Your task to perform on an android device: turn on data saver in the chrome app Image 0: 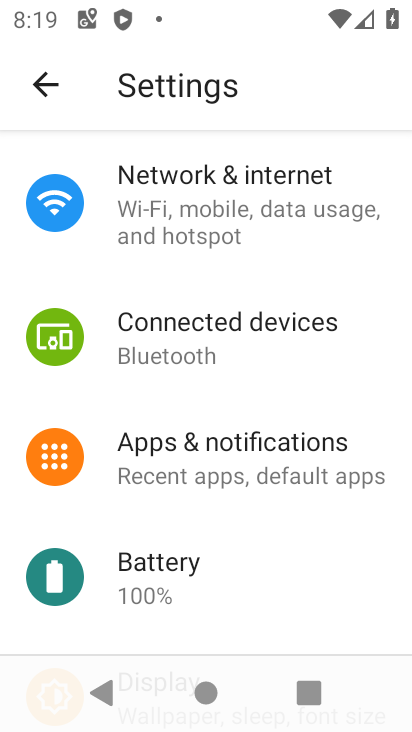
Step 0: press home button
Your task to perform on an android device: turn on data saver in the chrome app Image 1: 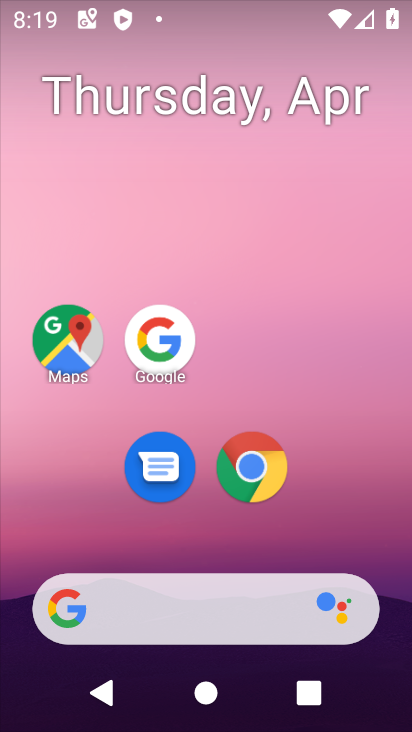
Step 1: drag from (228, 600) to (198, 6)
Your task to perform on an android device: turn on data saver in the chrome app Image 2: 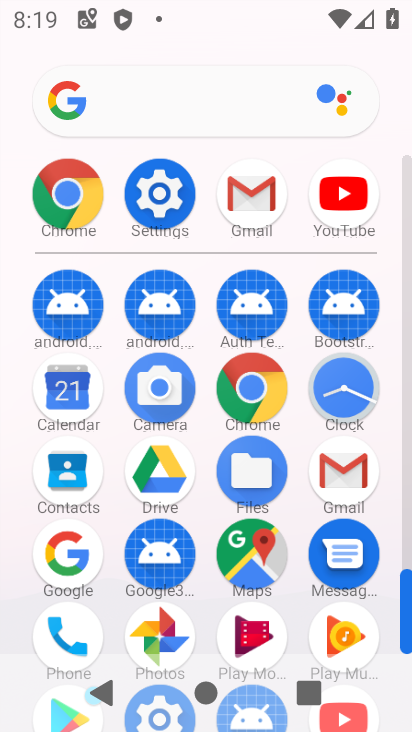
Step 2: click (83, 208)
Your task to perform on an android device: turn on data saver in the chrome app Image 3: 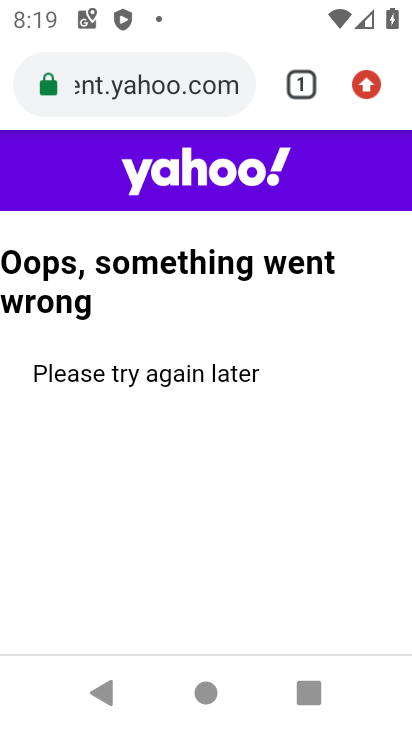
Step 3: click (366, 73)
Your task to perform on an android device: turn on data saver in the chrome app Image 4: 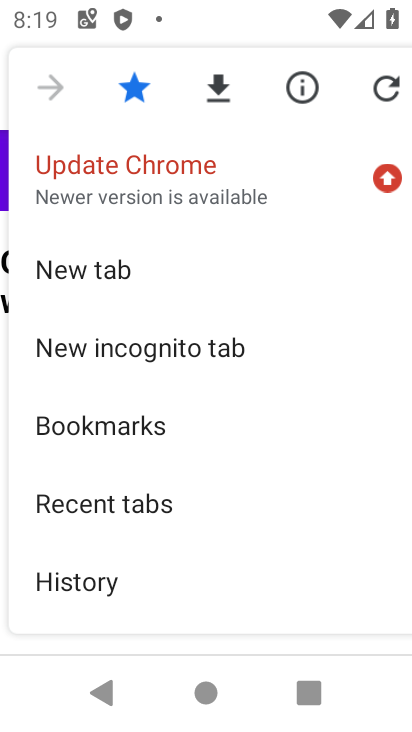
Step 4: drag from (166, 536) to (49, 22)
Your task to perform on an android device: turn on data saver in the chrome app Image 5: 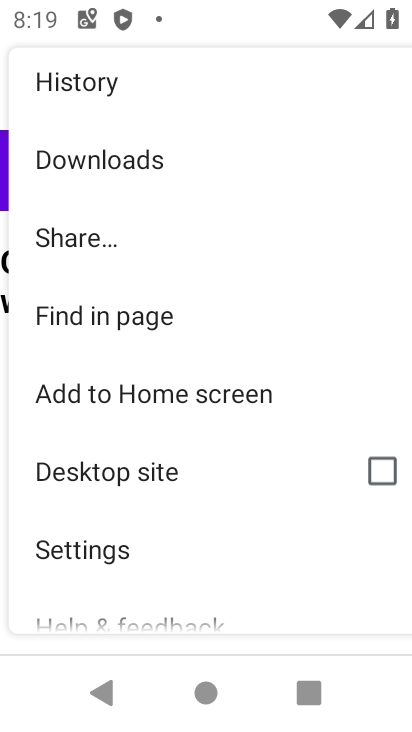
Step 5: drag from (127, 597) to (128, 136)
Your task to perform on an android device: turn on data saver in the chrome app Image 6: 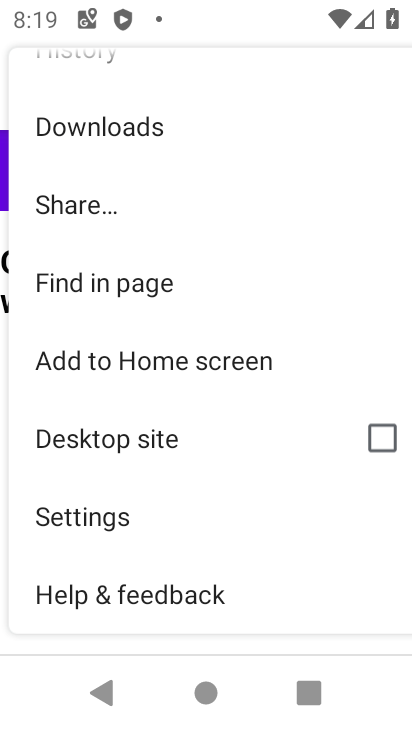
Step 6: click (108, 518)
Your task to perform on an android device: turn on data saver in the chrome app Image 7: 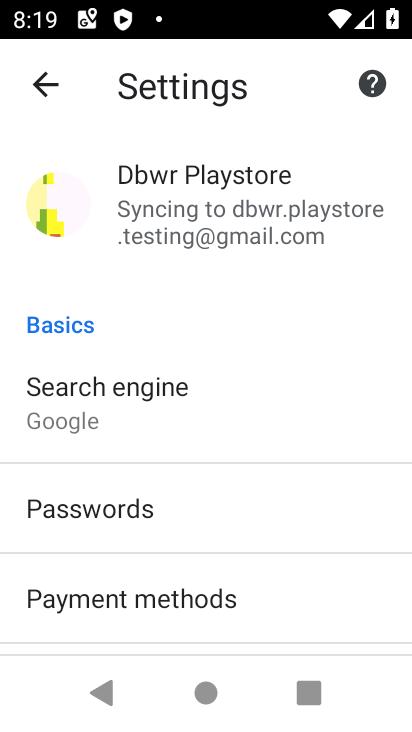
Step 7: drag from (185, 551) to (101, 35)
Your task to perform on an android device: turn on data saver in the chrome app Image 8: 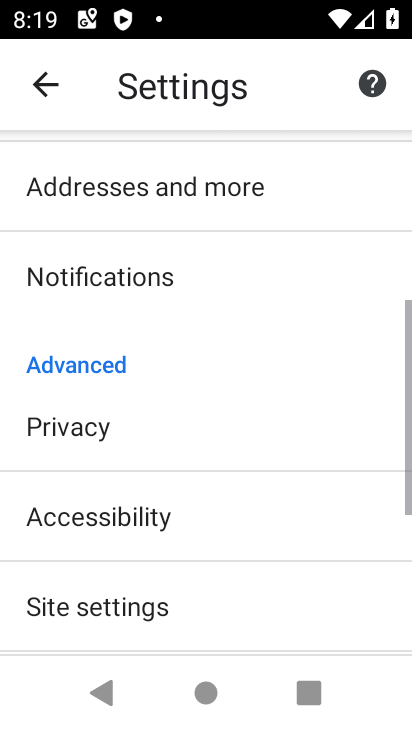
Step 8: drag from (169, 593) to (139, 27)
Your task to perform on an android device: turn on data saver in the chrome app Image 9: 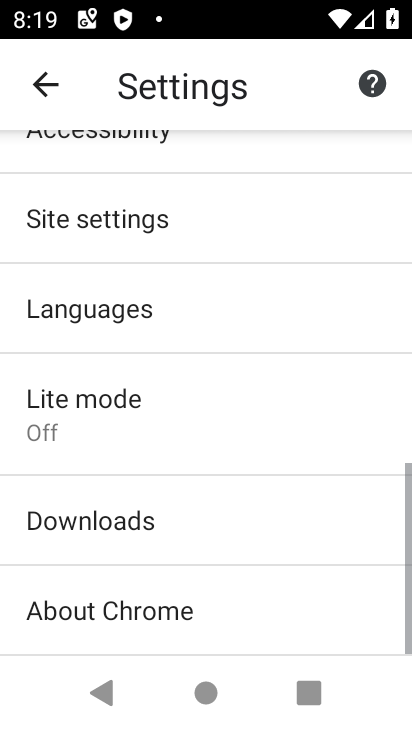
Step 9: click (153, 446)
Your task to perform on an android device: turn on data saver in the chrome app Image 10: 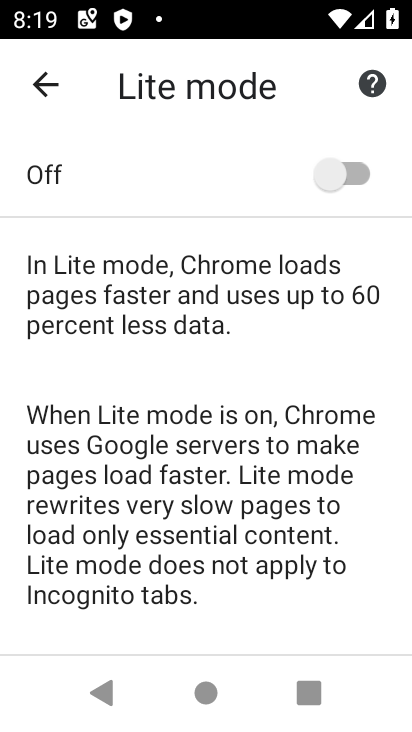
Step 10: click (343, 176)
Your task to perform on an android device: turn on data saver in the chrome app Image 11: 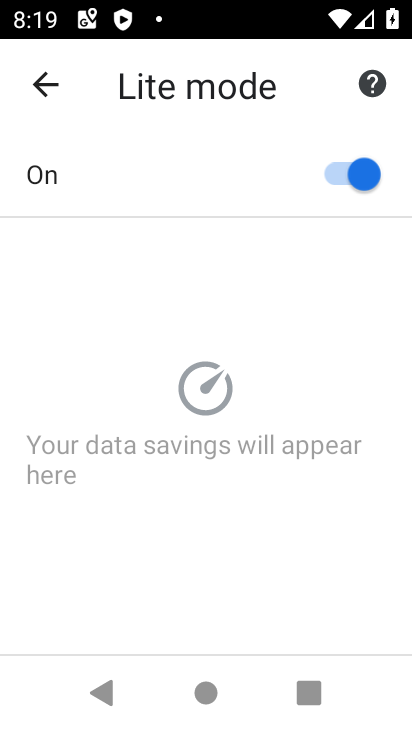
Step 11: task complete